Your task to perform on an android device: Find coffee shops on Maps Image 0: 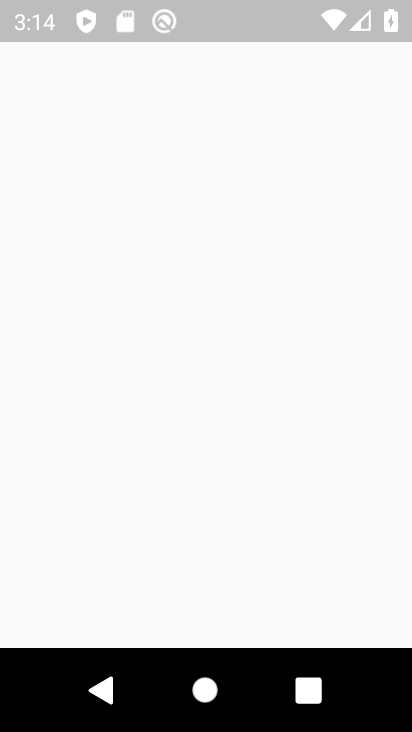
Step 0: press back button
Your task to perform on an android device: Find coffee shops on Maps Image 1: 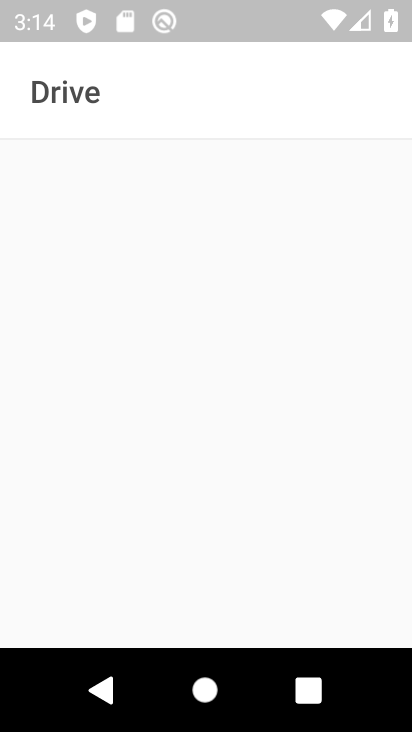
Step 1: press home button
Your task to perform on an android device: Find coffee shops on Maps Image 2: 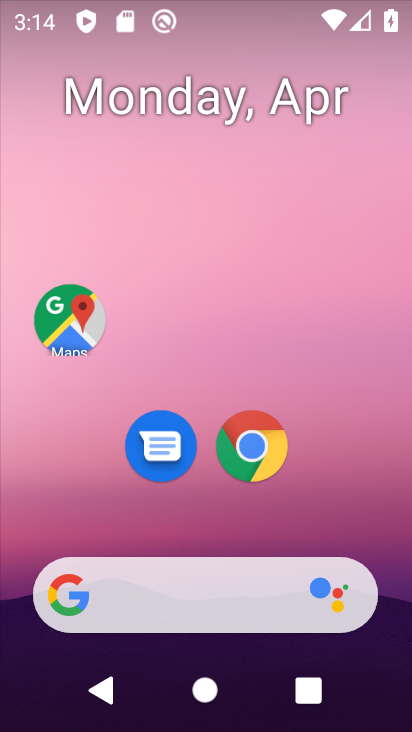
Step 2: drag from (359, 505) to (290, 52)
Your task to perform on an android device: Find coffee shops on Maps Image 3: 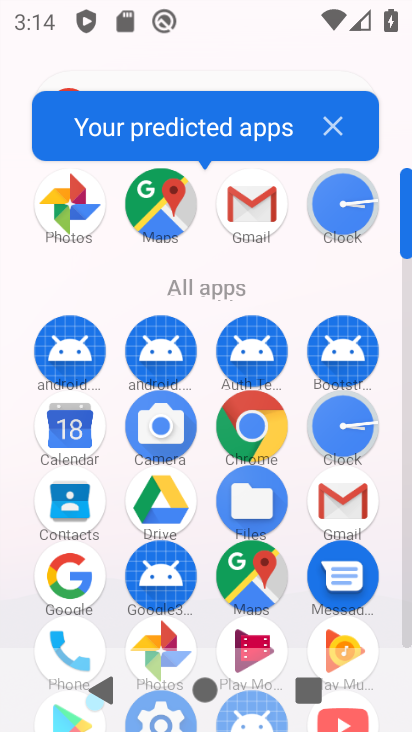
Step 3: drag from (10, 409) to (3, 191)
Your task to perform on an android device: Find coffee shops on Maps Image 4: 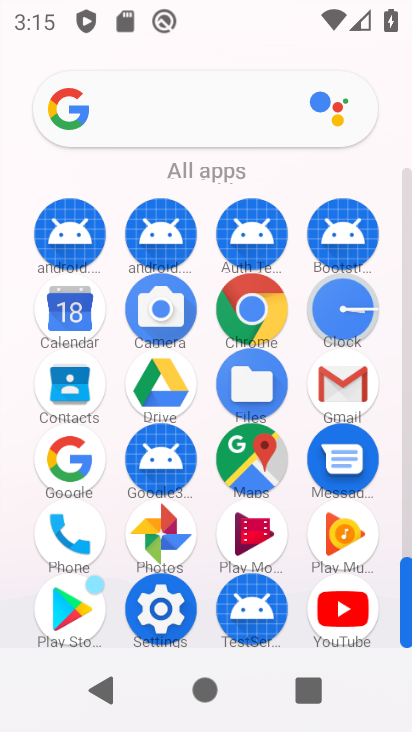
Step 4: click (248, 456)
Your task to perform on an android device: Find coffee shops on Maps Image 5: 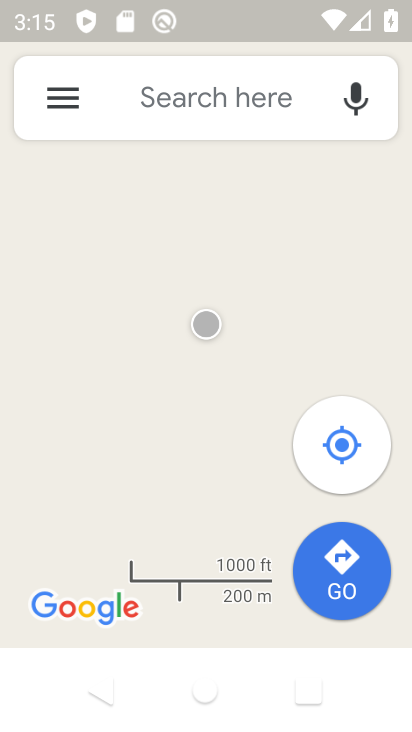
Step 5: click (309, 96)
Your task to perform on an android device: Find coffee shops on Maps Image 6: 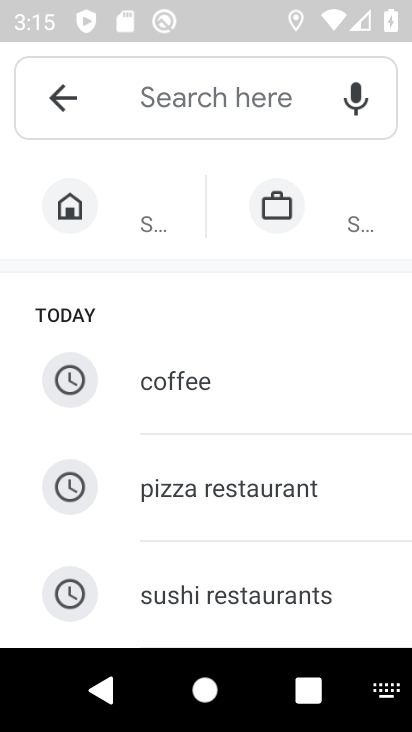
Step 6: type "coffee"
Your task to perform on an android device: Find coffee shops on Maps Image 7: 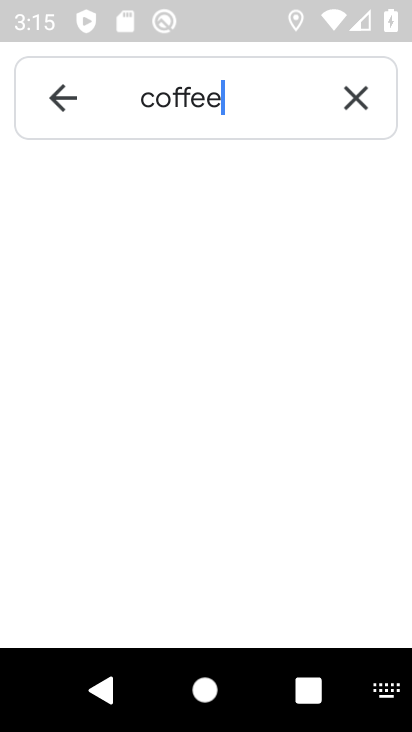
Step 7: type ""
Your task to perform on an android device: Find coffee shops on Maps Image 8: 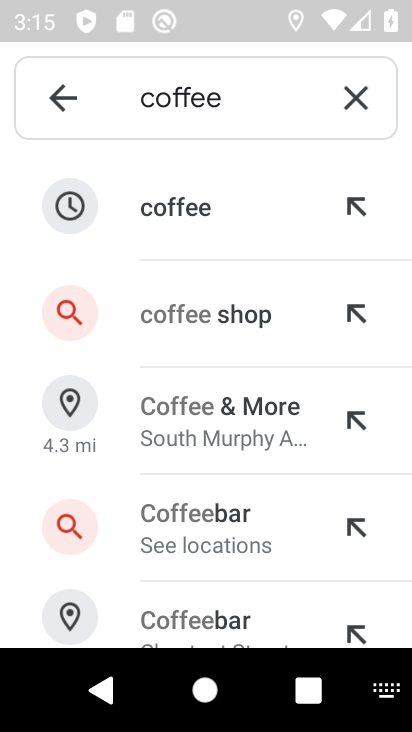
Step 8: click (186, 208)
Your task to perform on an android device: Find coffee shops on Maps Image 9: 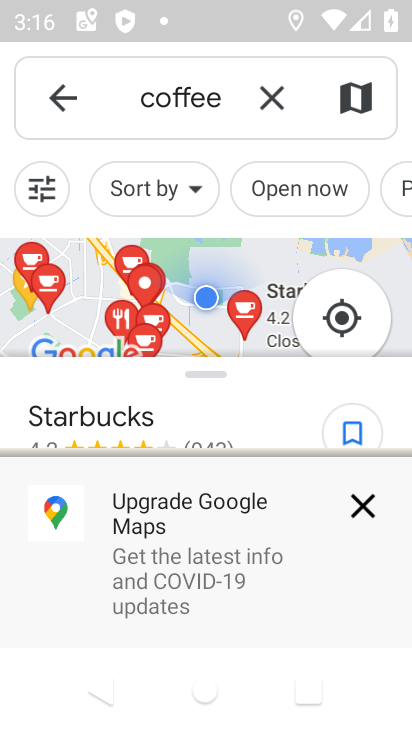
Step 9: task complete